Your task to perform on an android device: Open Yahoo.com Image 0: 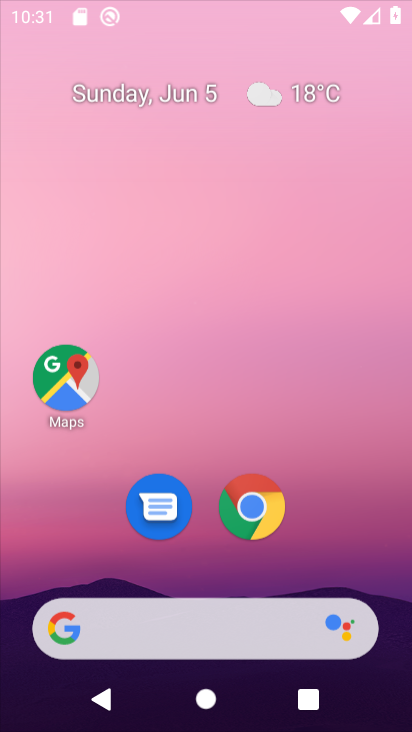
Step 0: click (68, 390)
Your task to perform on an android device: Open Yahoo.com Image 1: 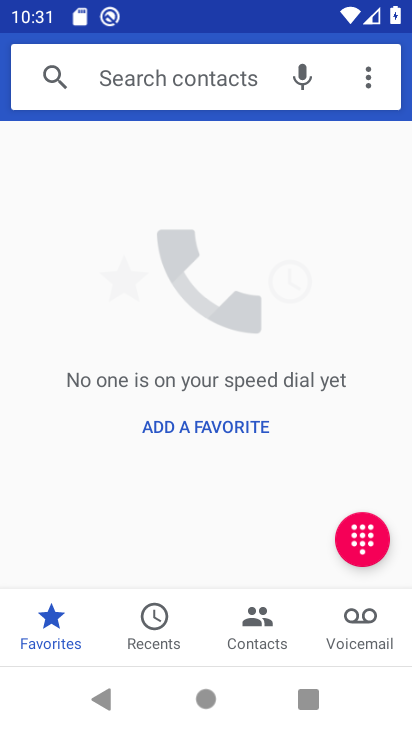
Step 1: press home button
Your task to perform on an android device: Open Yahoo.com Image 2: 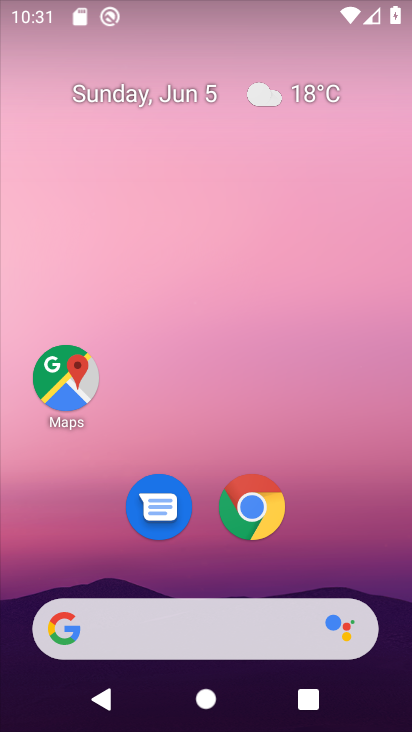
Step 2: click (255, 527)
Your task to perform on an android device: Open Yahoo.com Image 3: 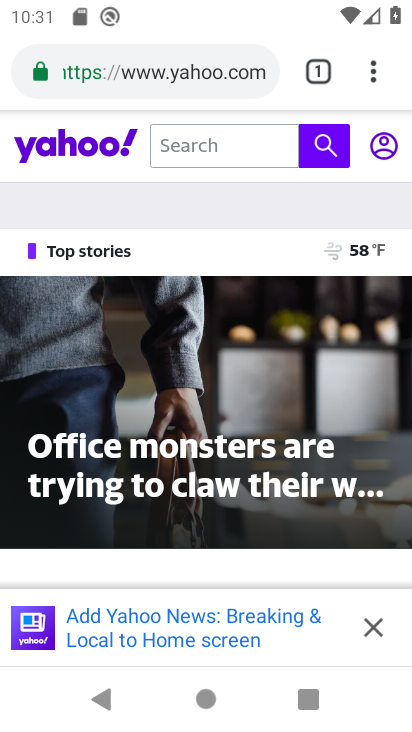
Step 3: click (188, 78)
Your task to perform on an android device: Open Yahoo.com Image 4: 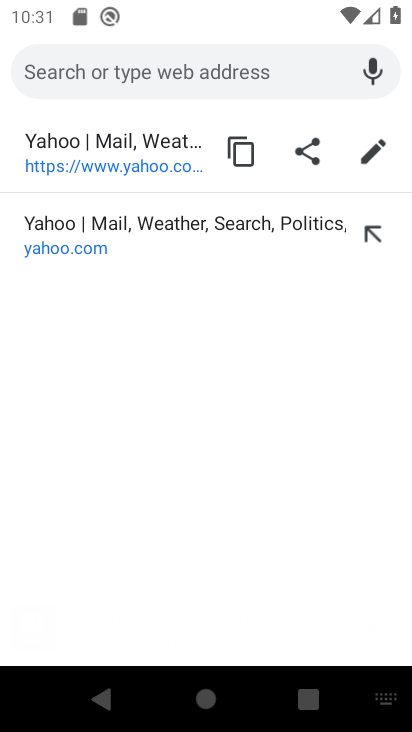
Step 4: click (132, 157)
Your task to perform on an android device: Open Yahoo.com Image 5: 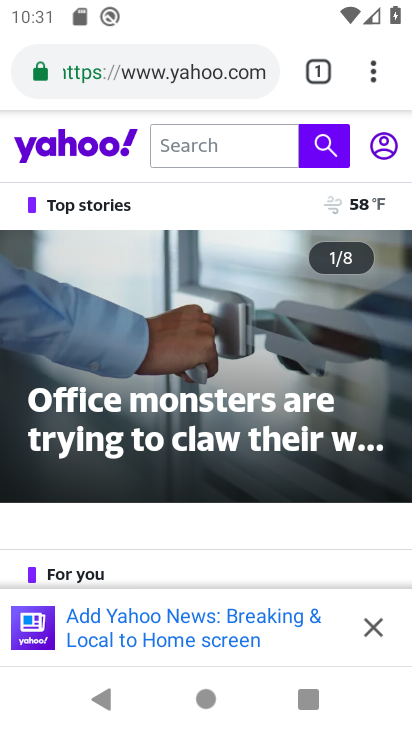
Step 5: task complete